Your task to perform on an android device: turn on data saver in the chrome app Image 0: 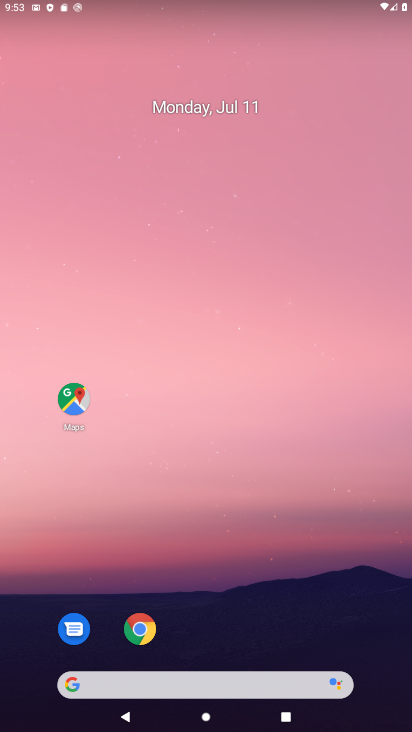
Step 0: click (135, 626)
Your task to perform on an android device: turn on data saver in the chrome app Image 1: 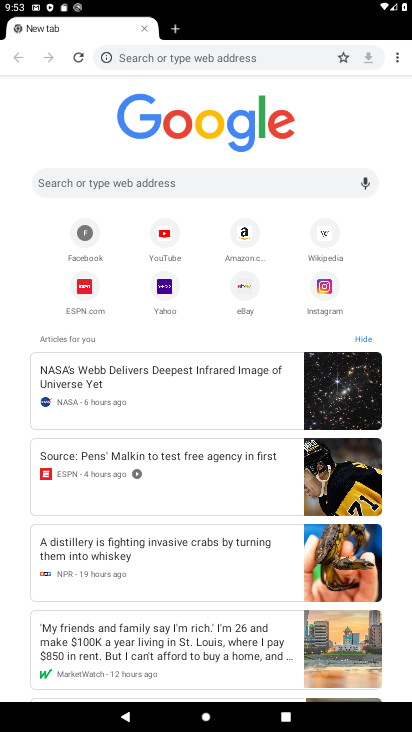
Step 1: click (400, 61)
Your task to perform on an android device: turn on data saver in the chrome app Image 2: 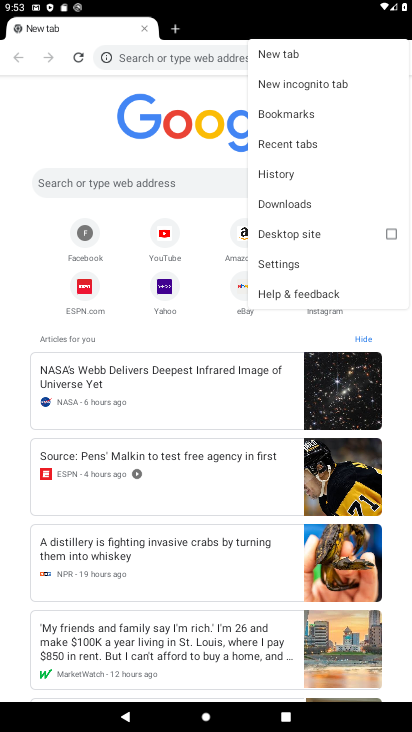
Step 2: click (276, 257)
Your task to perform on an android device: turn on data saver in the chrome app Image 3: 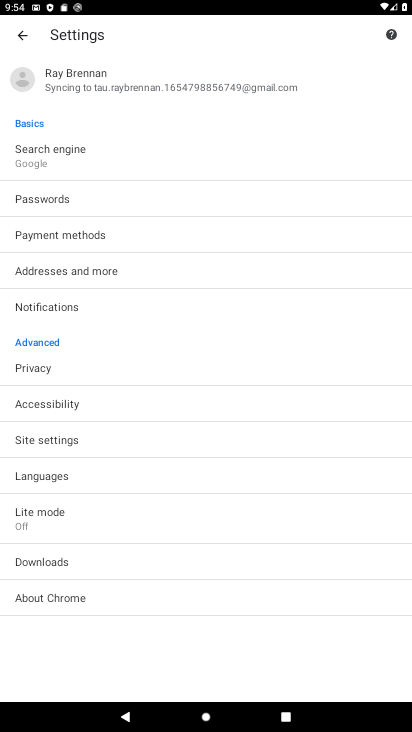
Step 3: click (111, 521)
Your task to perform on an android device: turn on data saver in the chrome app Image 4: 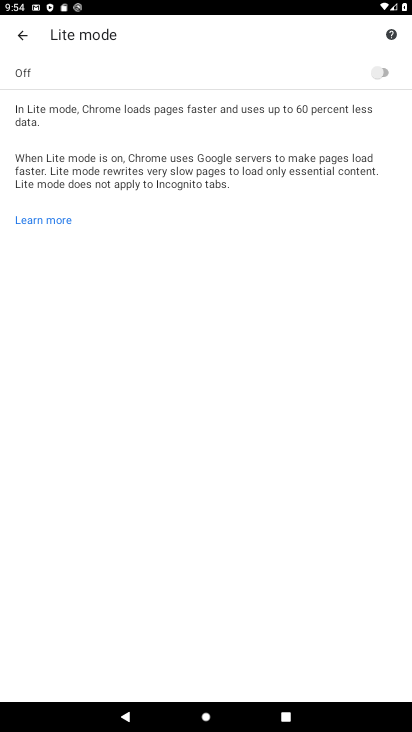
Step 4: click (386, 73)
Your task to perform on an android device: turn on data saver in the chrome app Image 5: 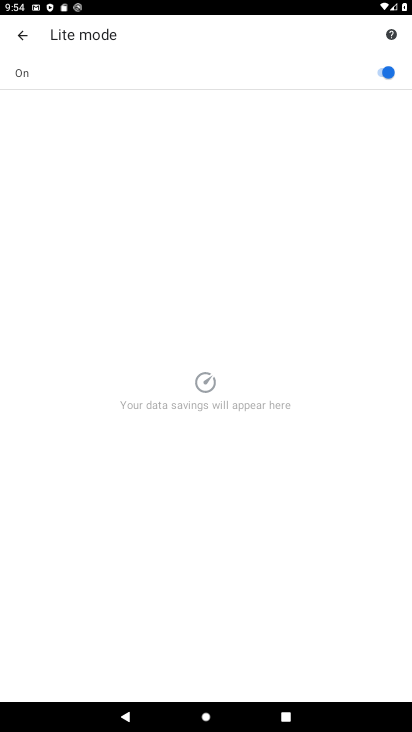
Step 5: task complete